Your task to perform on an android device: stop showing notifications on the lock screen Image 0: 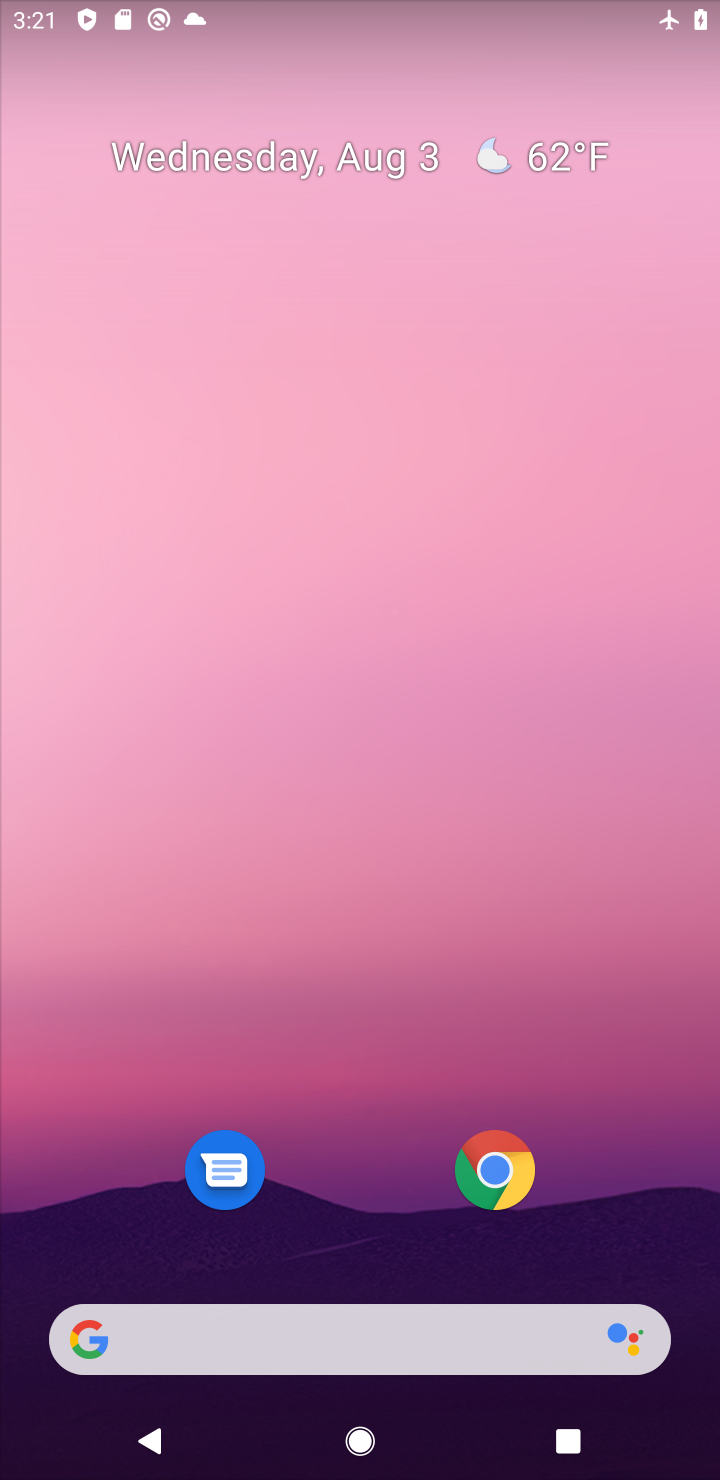
Step 0: drag from (385, 996) to (460, 546)
Your task to perform on an android device: stop showing notifications on the lock screen Image 1: 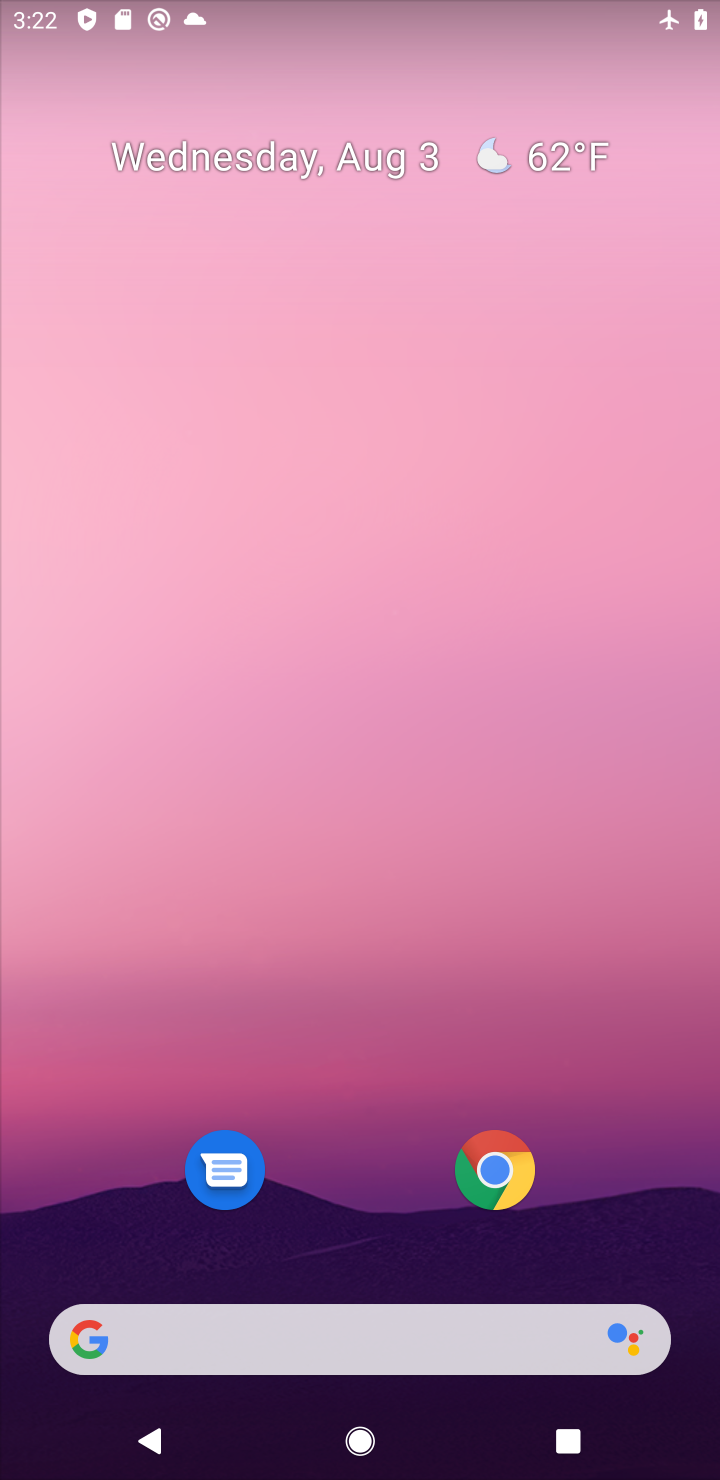
Step 1: drag from (317, 1171) to (484, 320)
Your task to perform on an android device: stop showing notifications on the lock screen Image 2: 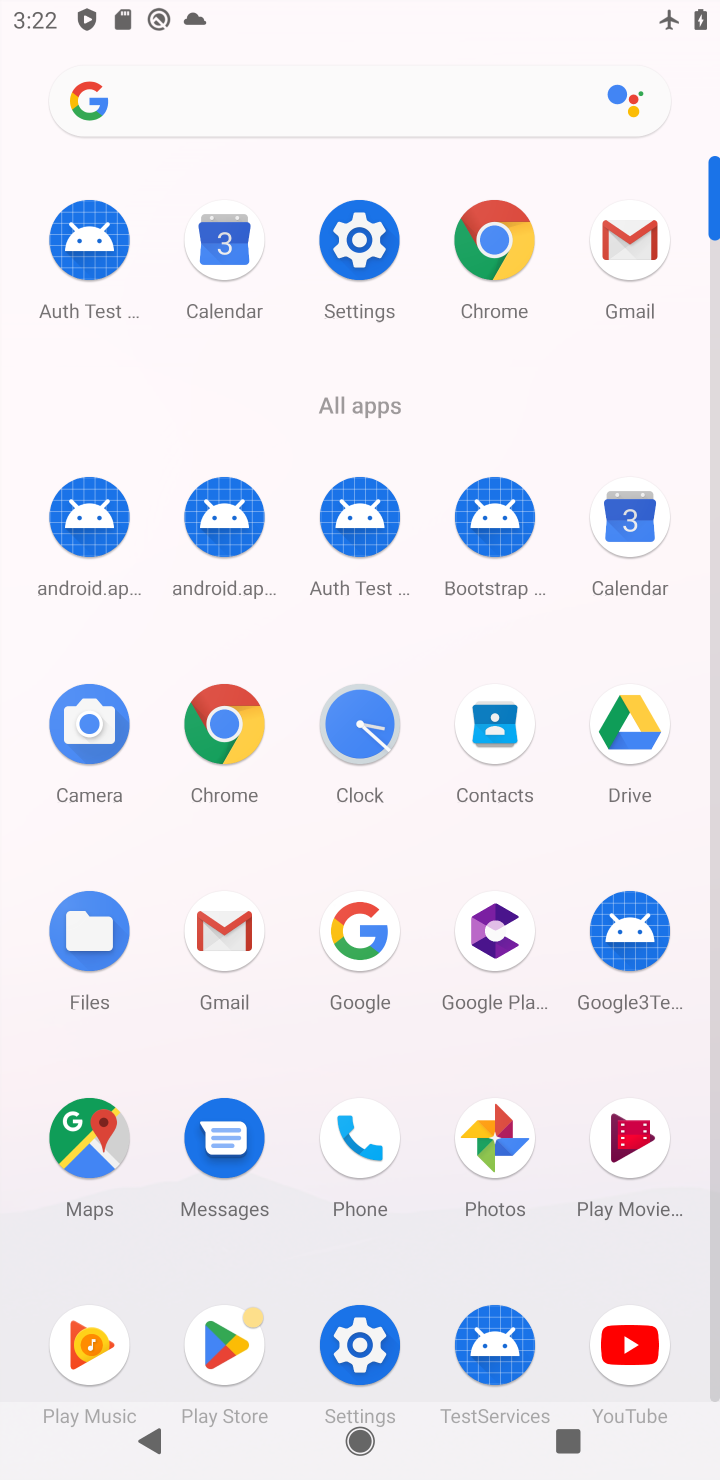
Step 2: click (352, 249)
Your task to perform on an android device: stop showing notifications on the lock screen Image 3: 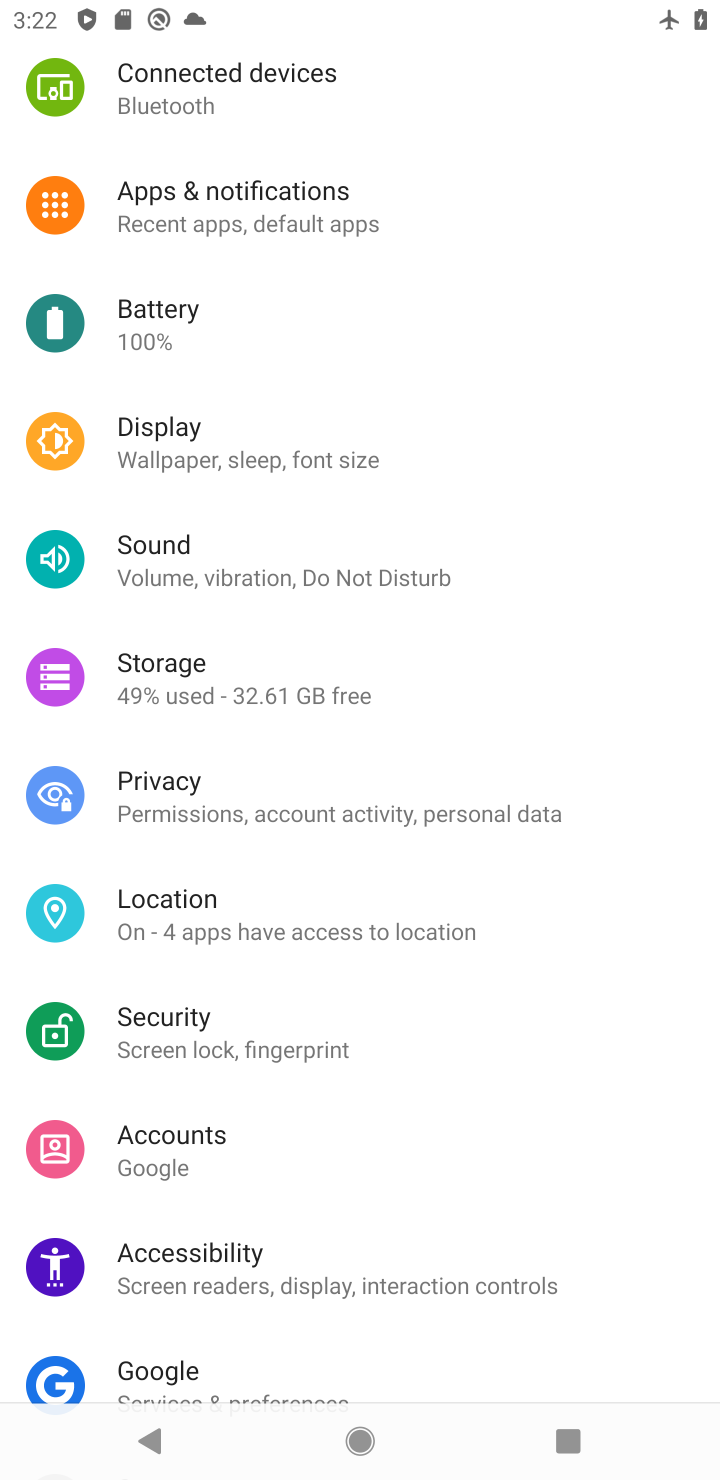
Step 3: click (312, 207)
Your task to perform on an android device: stop showing notifications on the lock screen Image 4: 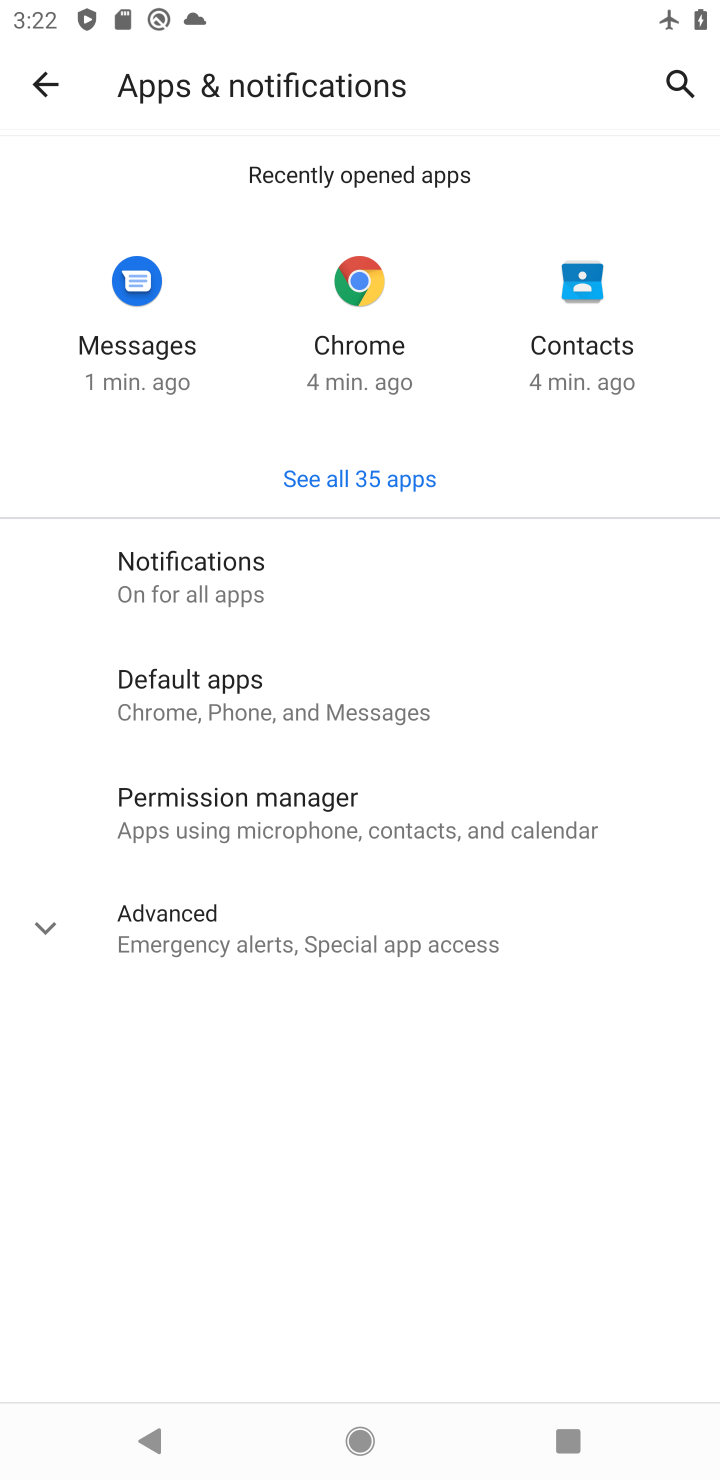
Step 4: click (203, 587)
Your task to perform on an android device: stop showing notifications on the lock screen Image 5: 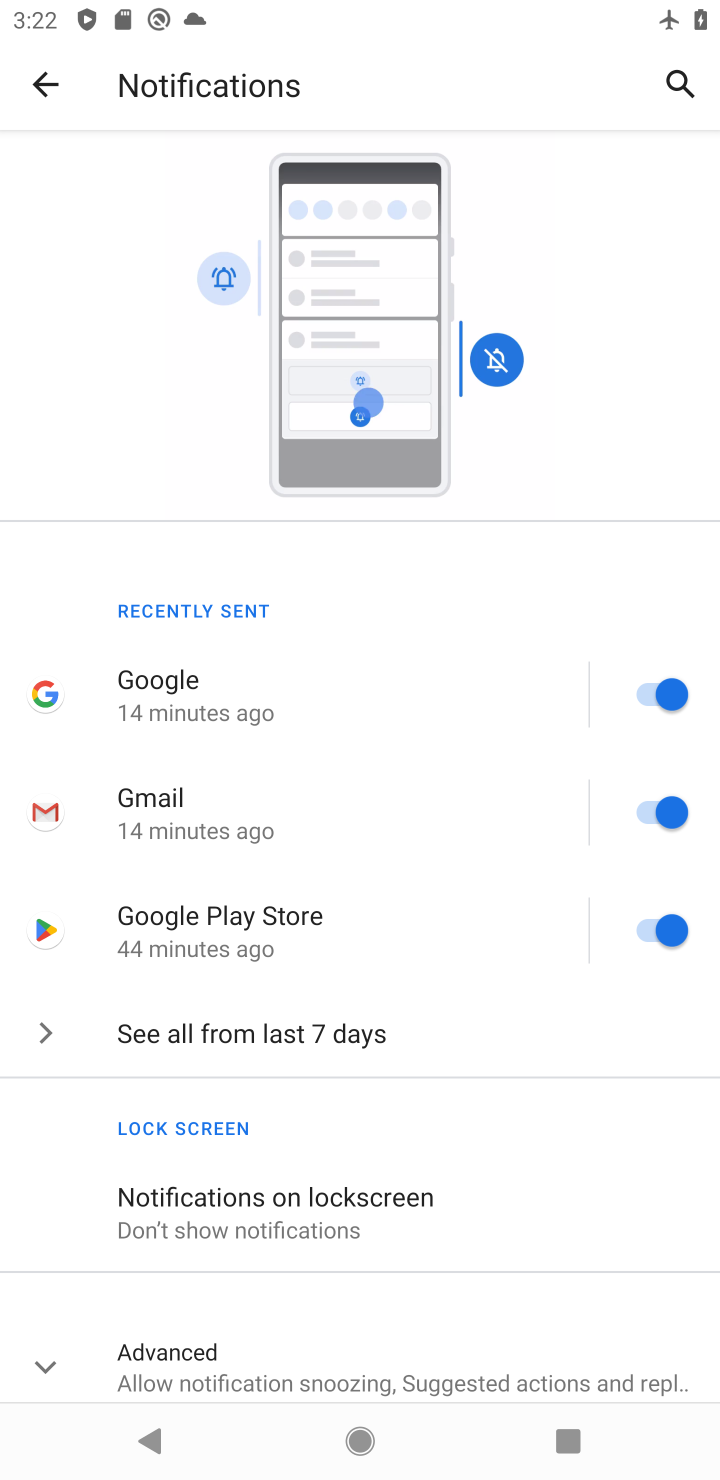
Step 5: click (195, 1182)
Your task to perform on an android device: stop showing notifications on the lock screen Image 6: 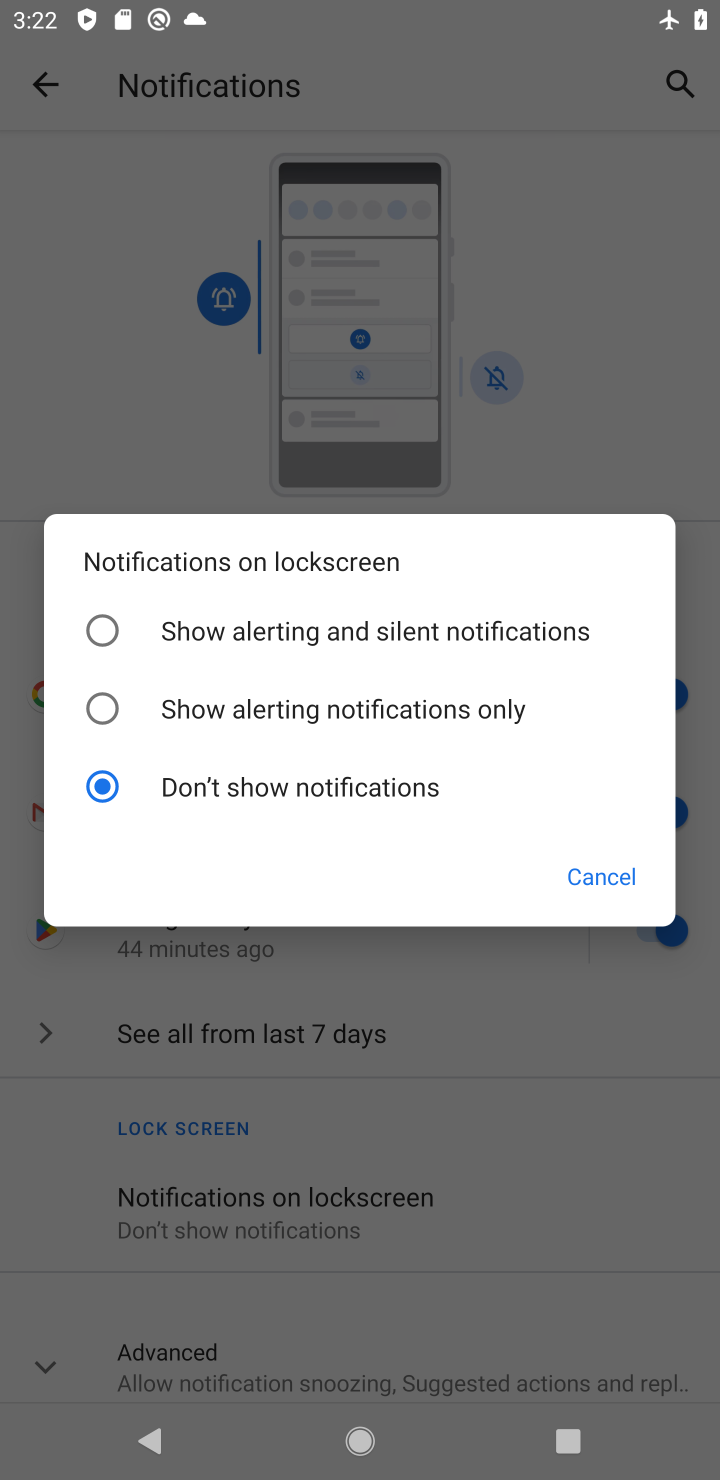
Step 6: click (113, 643)
Your task to perform on an android device: stop showing notifications on the lock screen Image 7: 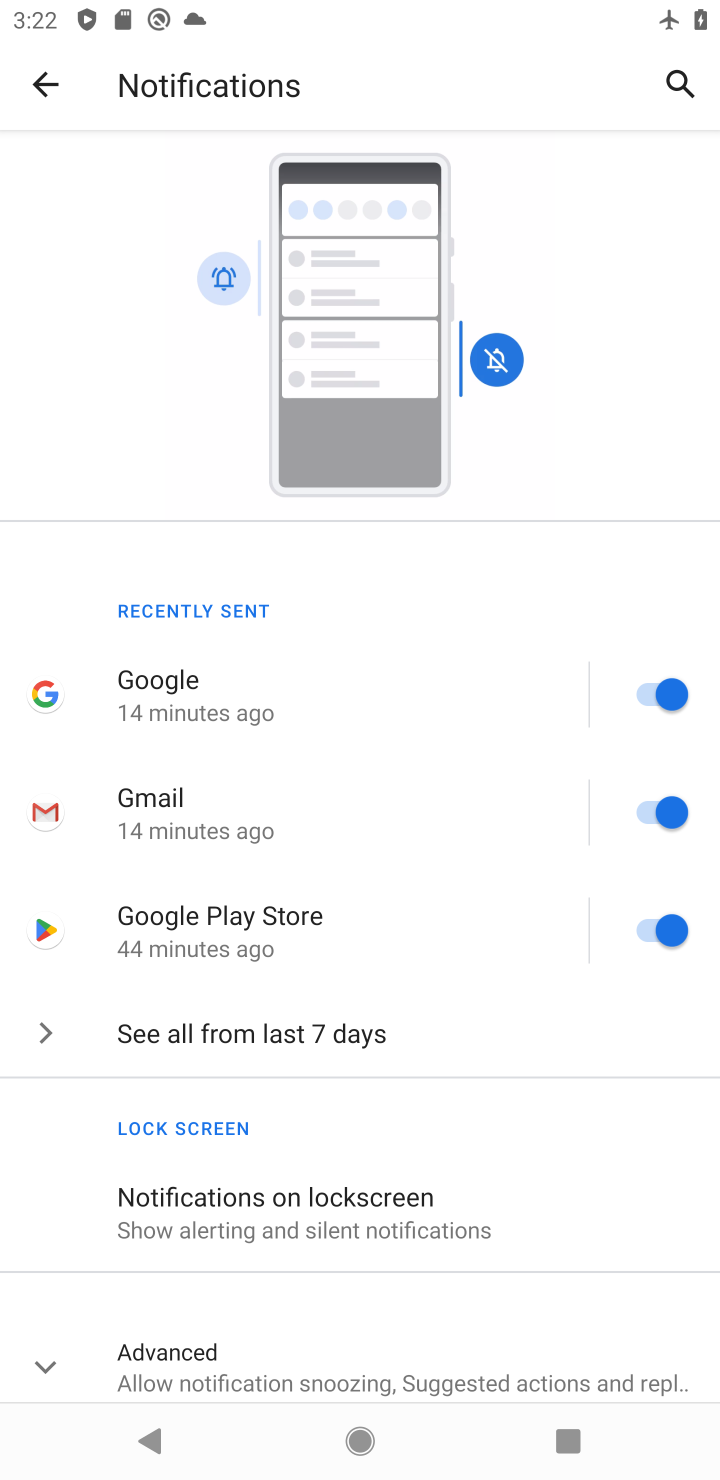
Step 7: task complete